Your task to perform on an android device: install app "McDonald's" Image 0: 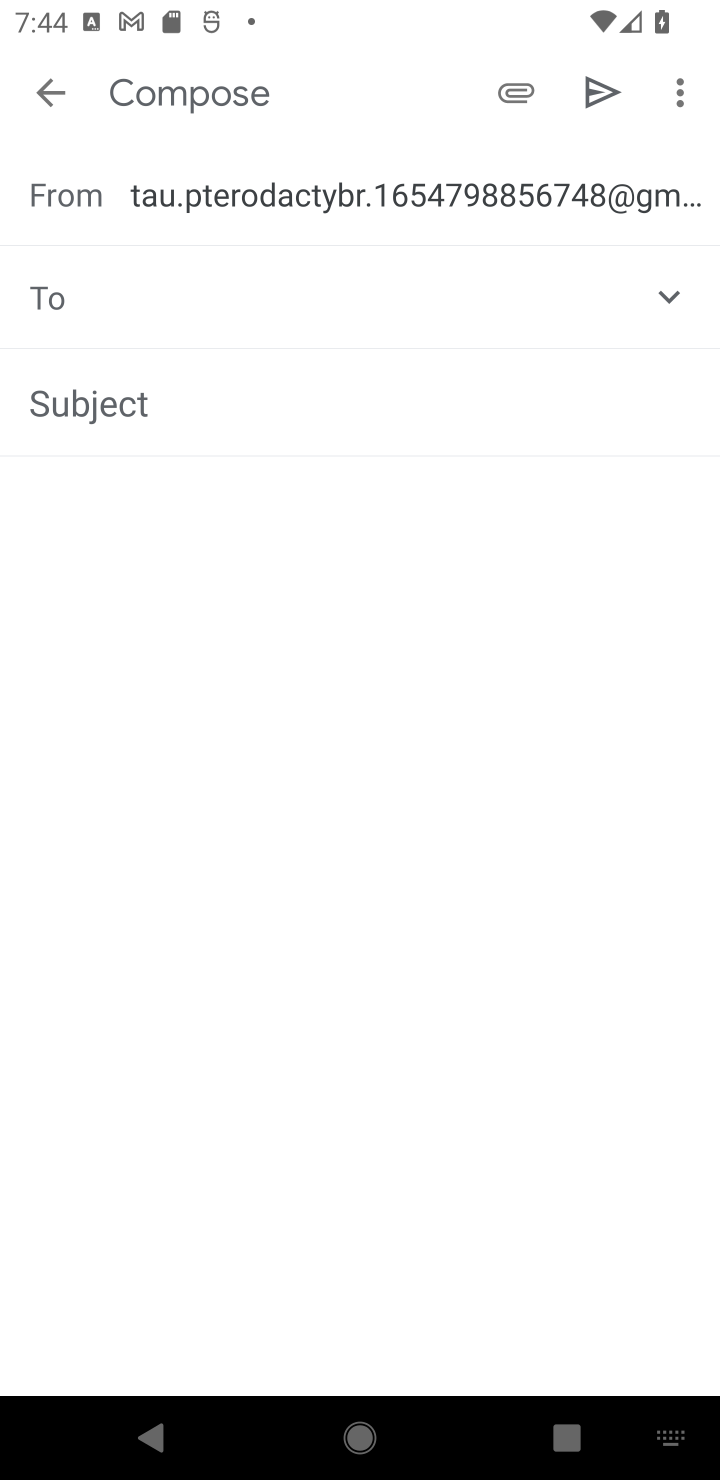
Step 0: press home button
Your task to perform on an android device: install app "McDonald's" Image 1: 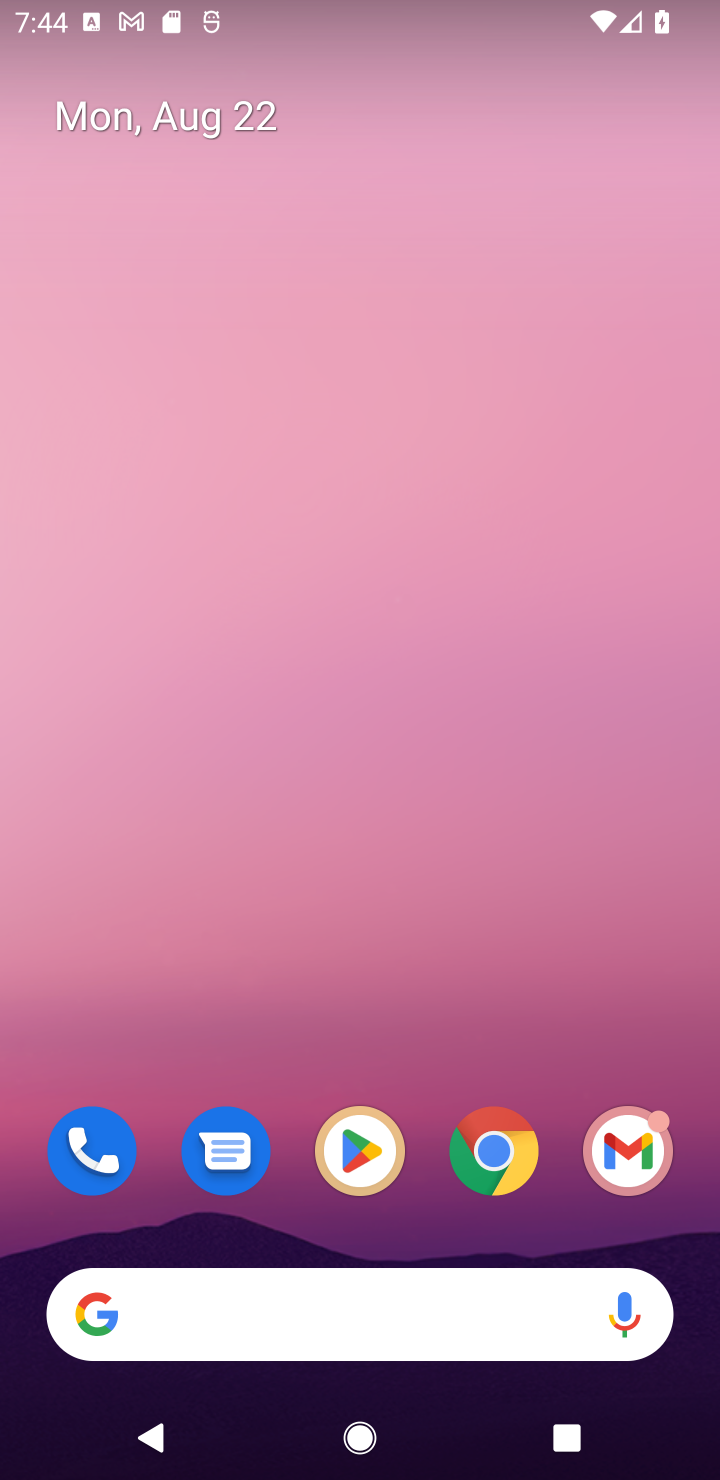
Step 1: click (367, 1138)
Your task to perform on an android device: install app "McDonald's" Image 2: 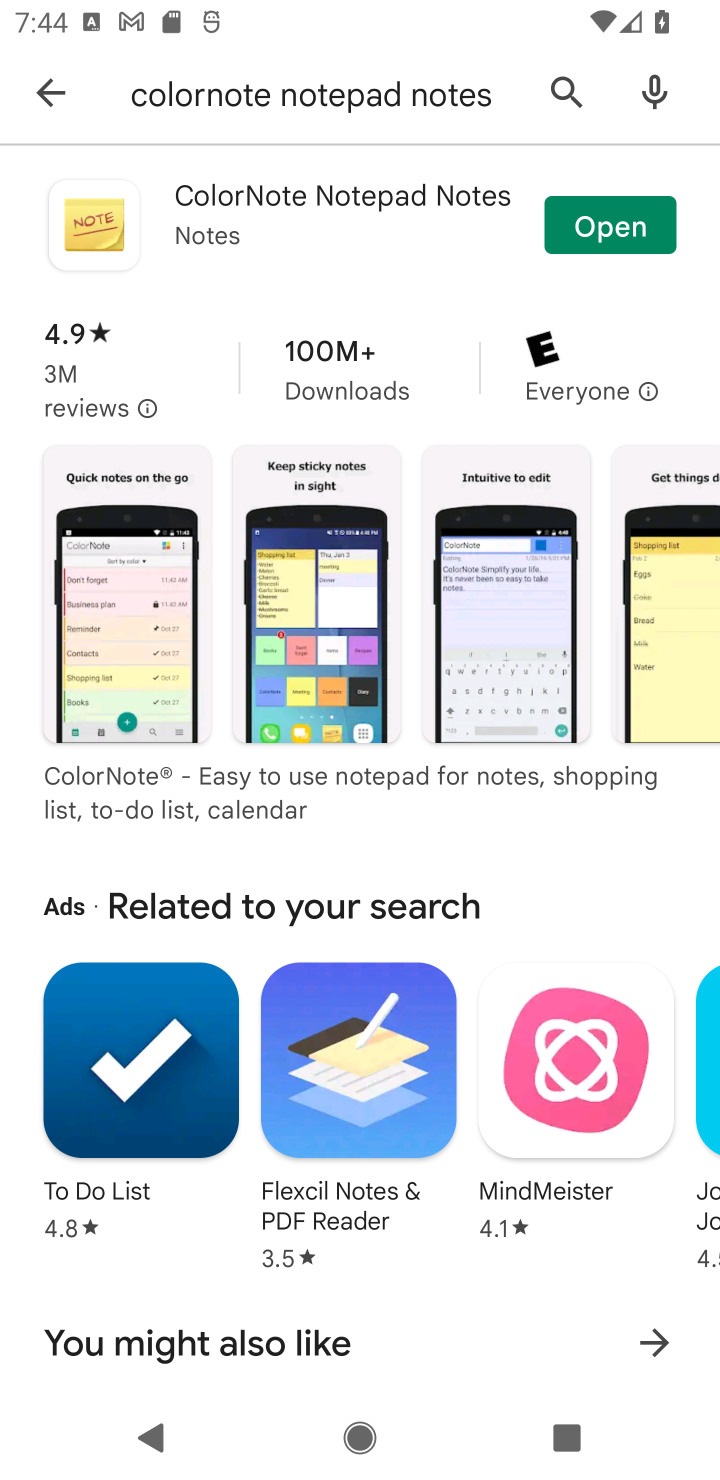
Step 2: click (553, 92)
Your task to perform on an android device: install app "McDonald's" Image 3: 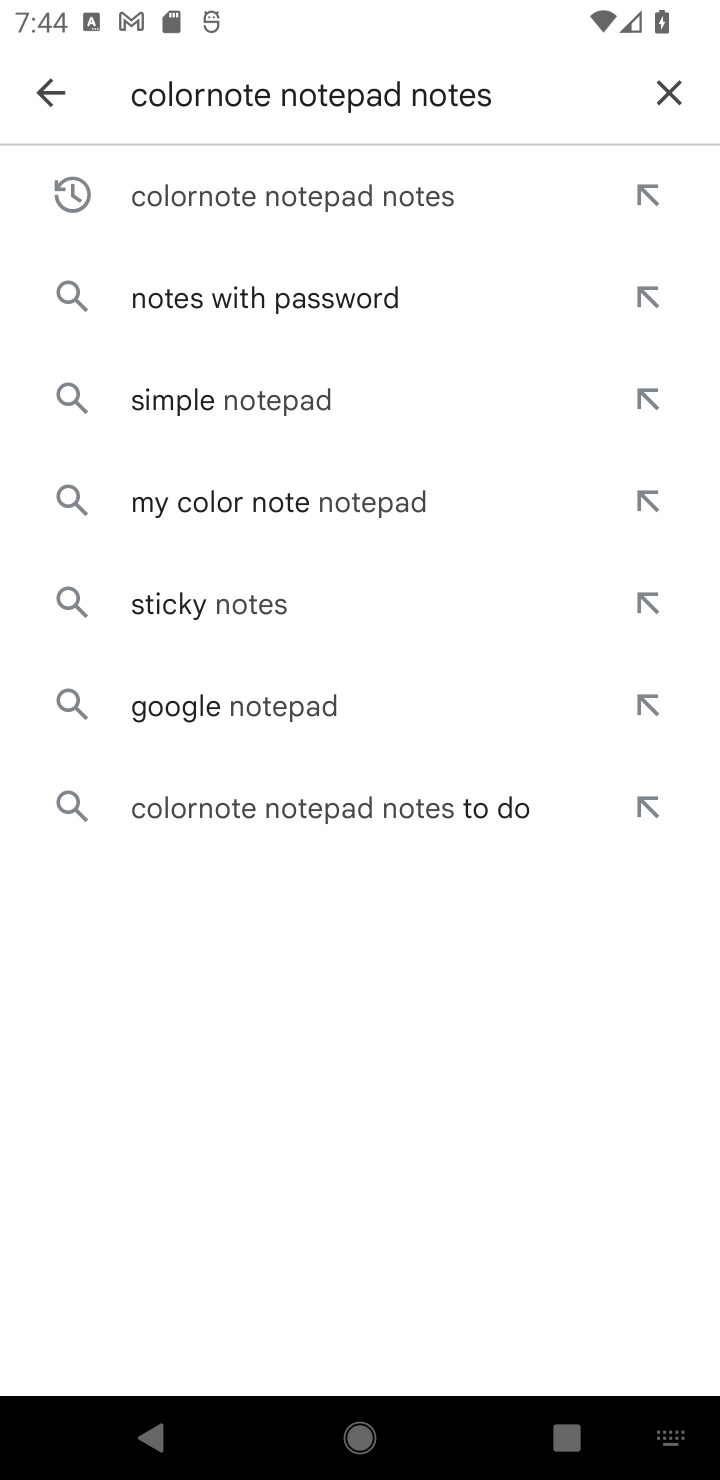
Step 3: click (661, 88)
Your task to perform on an android device: install app "McDonald's" Image 4: 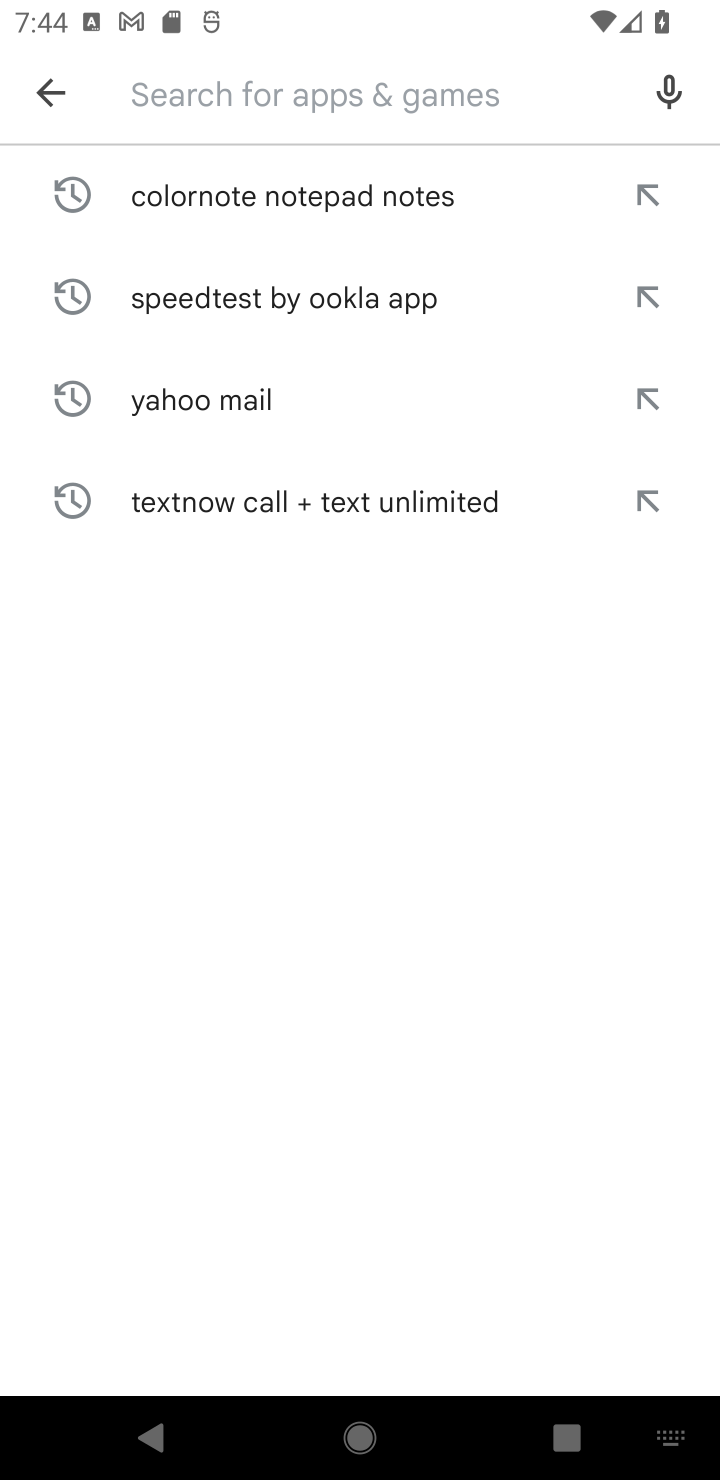
Step 4: type "McDonald's"
Your task to perform on an android device: install app "McDonald's" Image 5: 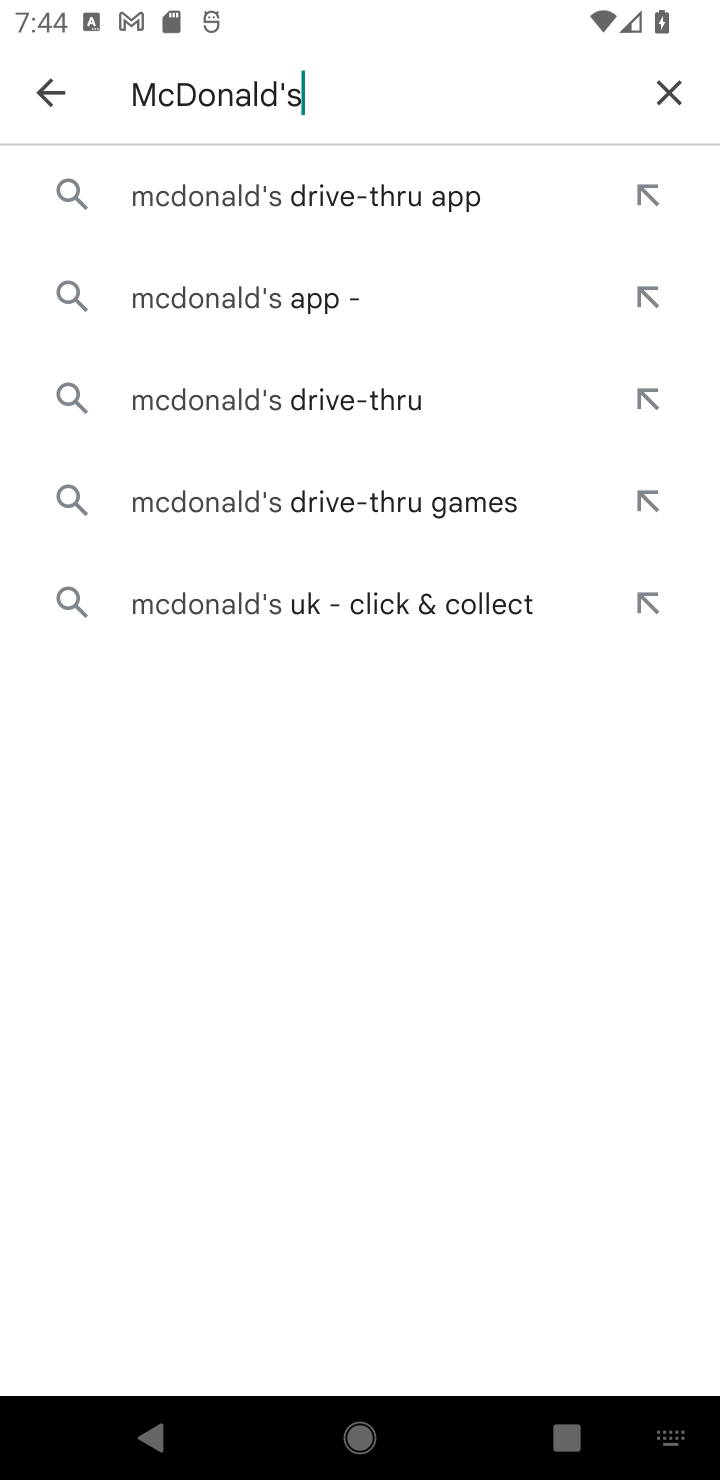
Step 5: click (274, 194)
Your task to perform on an android device: install app "McDonald's" Image 6: 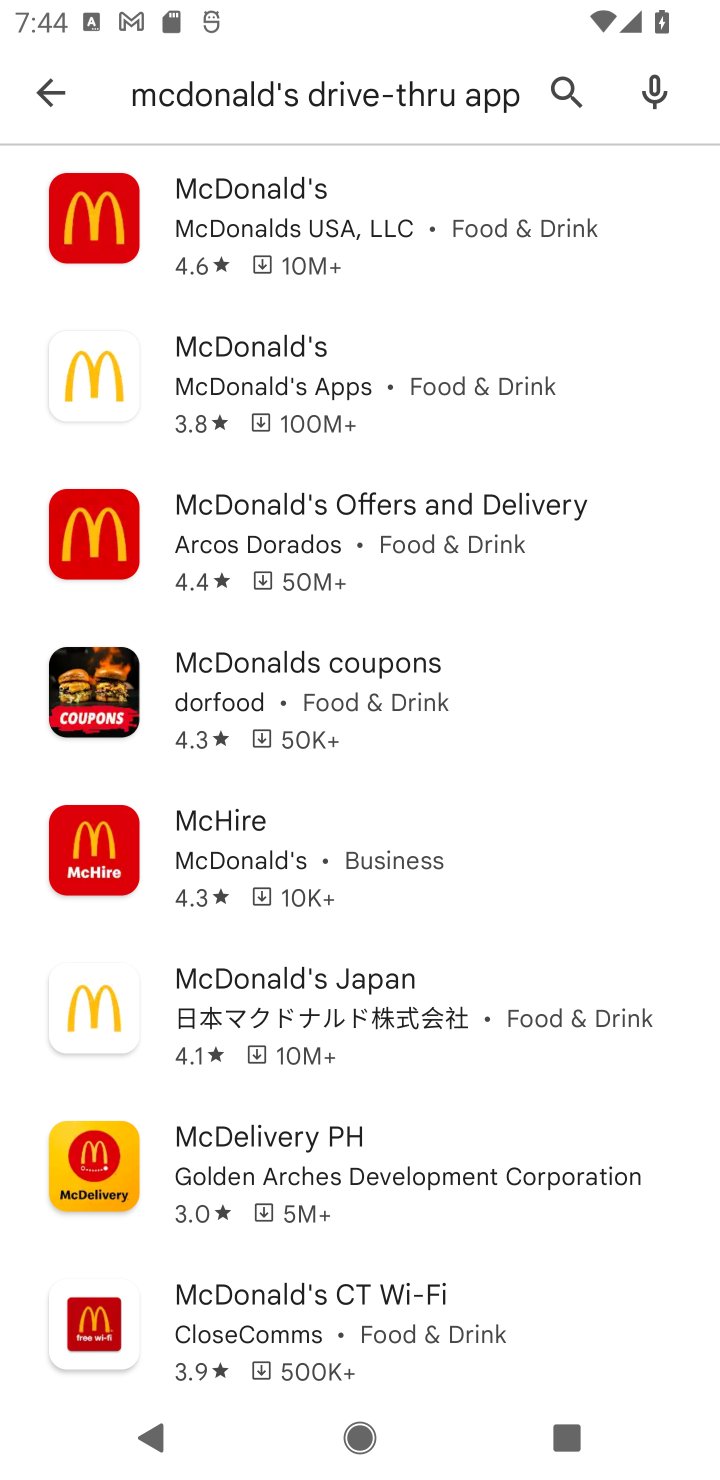
Step 6: click (306, 229)
Your task to perform on an android device: install app "McDonald's" Image 7: 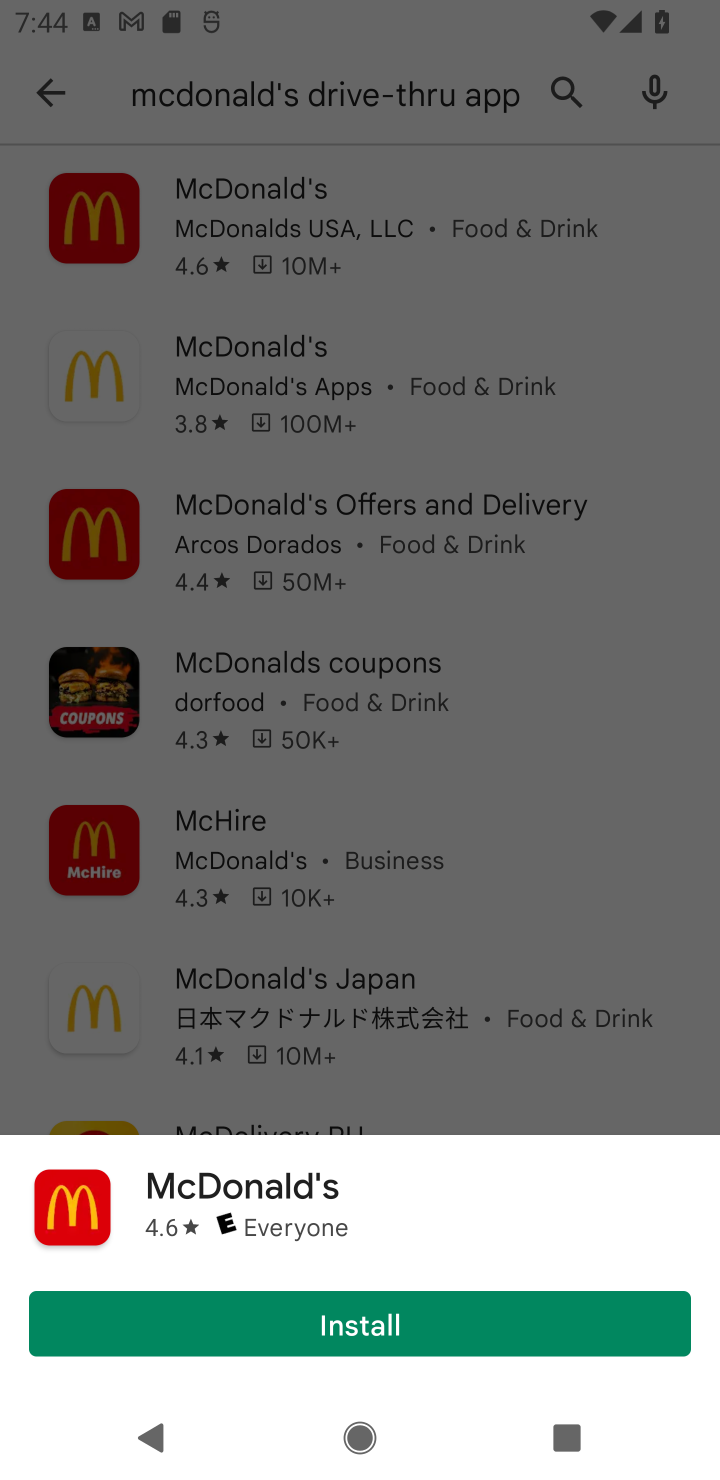
Step 7: click (418, 1323)
Your task to perform on an android device: install app "McDonald's" Image 8: 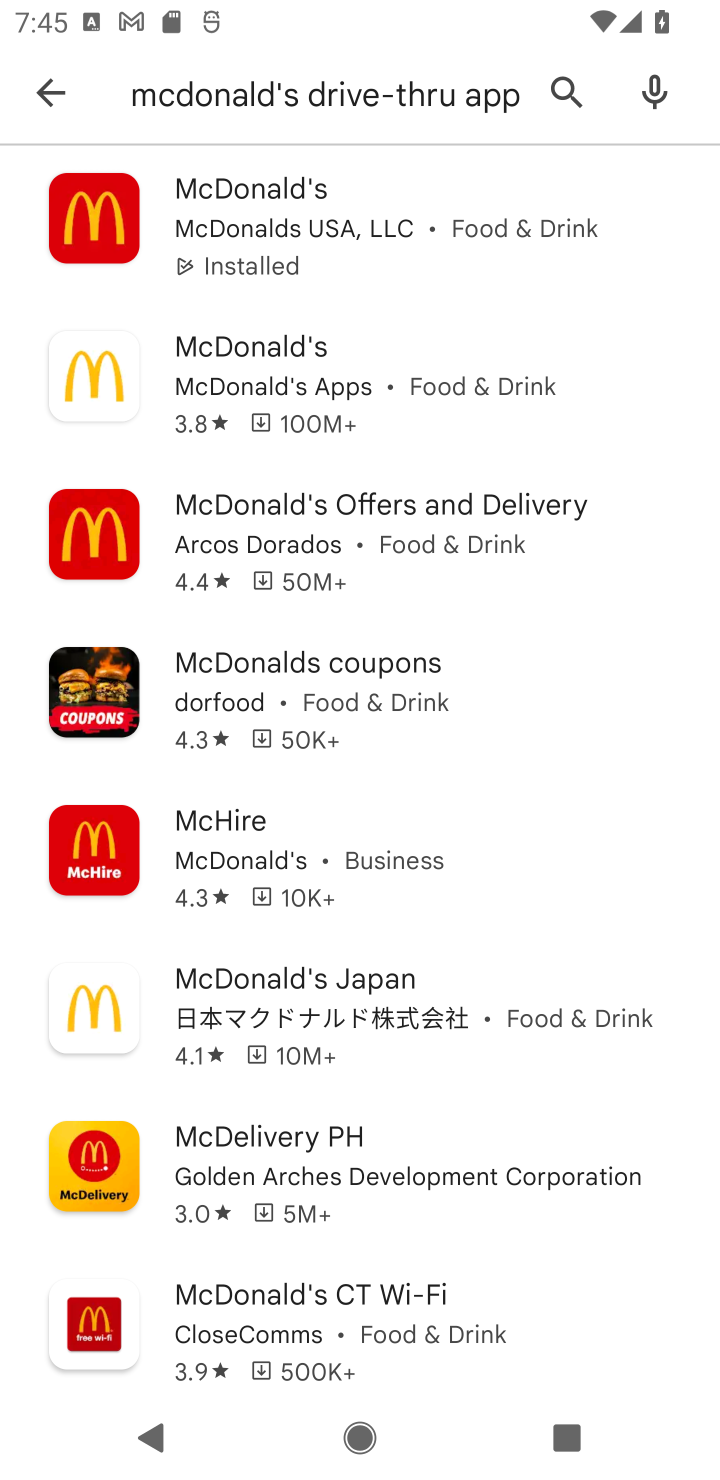
Step 8: task complete